Your task to perform on an android device: Open Google Chrome and open the bookmarks view Image 0: 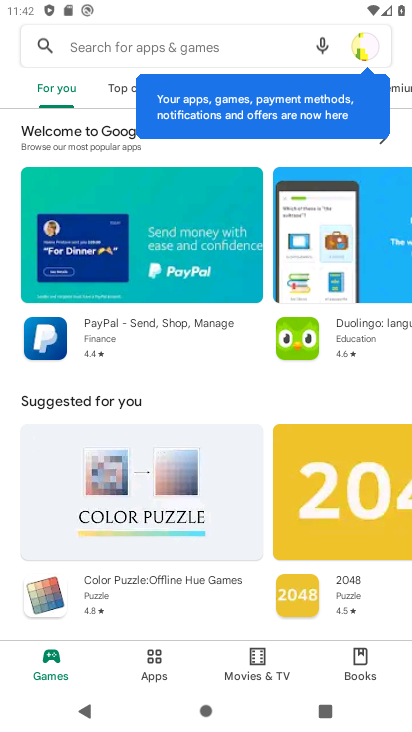
Step 0: press home button
Your task to perform on an android device: Open Google Chrome and open the bookmarks view Image 1: 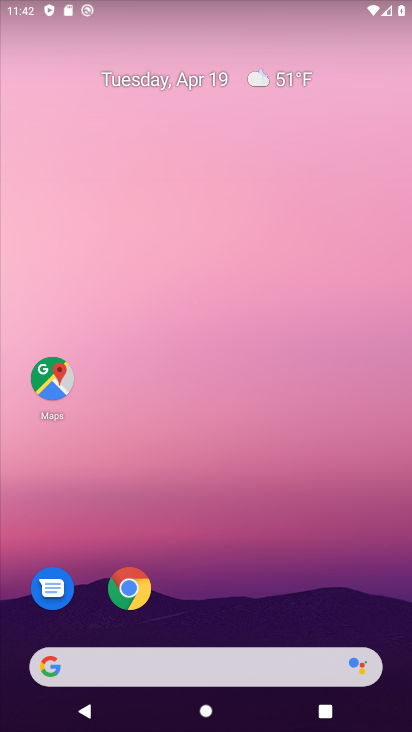
Step 1: click (129, 577)
Your task to perform on an android device: Open Google Chrome and open the bookmarks view Image 2: 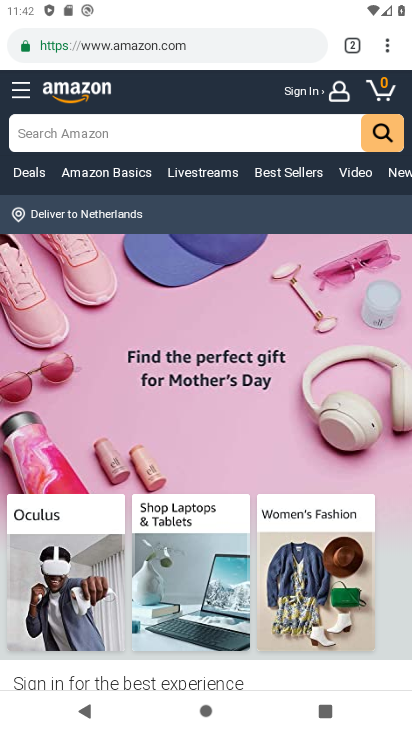
Step 2: click (389, 41)
Your task to perform on an android device: Open Google Chrome and open the bookmarks view Image 3: 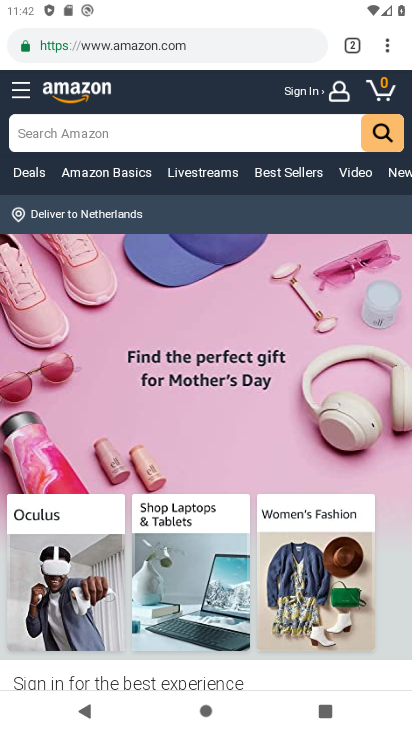
Step 3: click (384, 46)
Your task to perform on an android device: Open Google Chrome and open the bookmarks view Image 4: 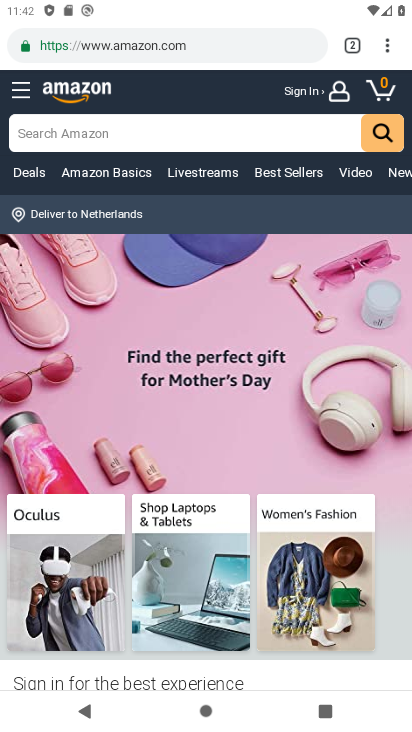
Step 4: click (389, 40)
Your task to perform on an android device: Open Google Chrome and open the bookmarks view Image 5: 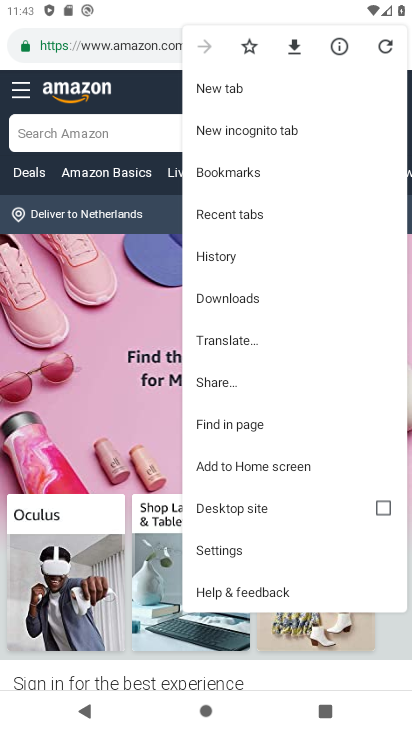
Step 5: click (272, 170)
Your task to perform on an android device: Open Google Chrome and open the bookmarks view Image 6: 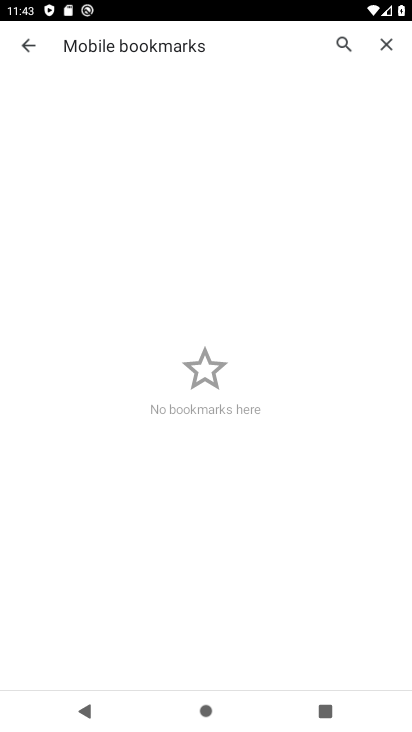
Step 6: task complete